Your task to perform on an android device: Empty the shopping cart on amazon. Search for corsair k70 on amazon, select the first entry, add it to the cart, then select checkout. Image 0: 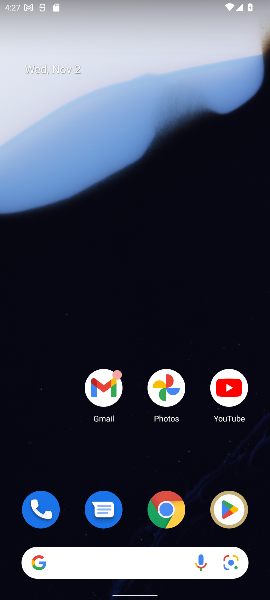
Step 0: click (147, 568)
Your task to perform on an android device: Empty the shopping cart on amazon. Search for corsair k70 on amazon, select the first entry, add it to the cart, then select checkout. Image 1: 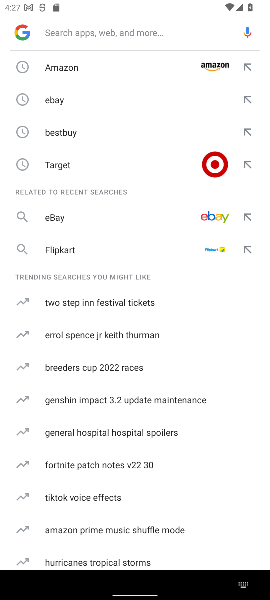
Step 1: click (56, 68)
Your task to perform on an android device: Empty the shopping cart on amazon. Search for corsair k70 on amazon, select the first entry, add it to the cart, then select checkout. Image 2: 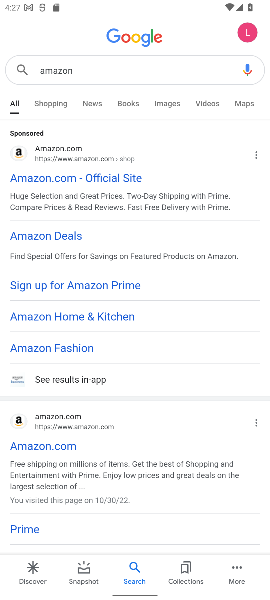
Step 2: click (75, 180)
Your task to perform on an android device: Empty the shopping cart on amazon. Search for corsair k70 on amazon, select the first entry, add it to the cart, then select checkout. Image 3: 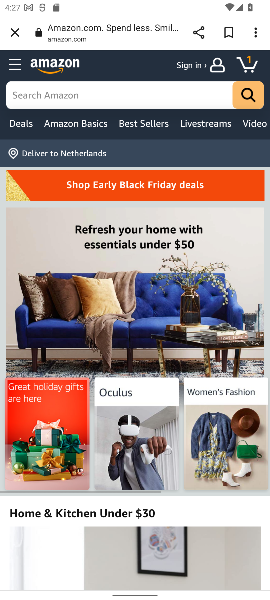
Step 3: click (119, 100)
Your task to perform on an android device: Empty the shopping cart on amazon. Search for corsair k70 on amazon, select the first entry, add it to the cart, then select checkout. Image 4: 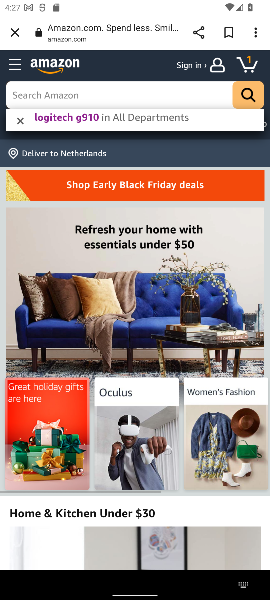
Step 4: type "corsair k70"
Your task to perform on an android device: Empty the shopping cart on amazon. Search for corsair k70 on amazon, select the first entry, add it to the cart, then select checkout. Image 5: 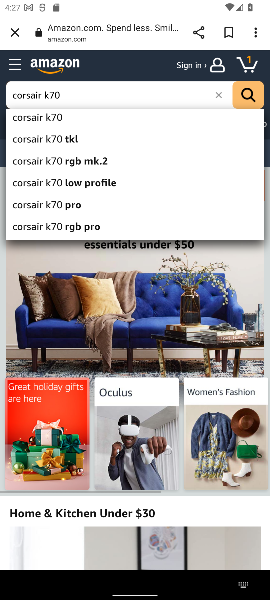
Step 5: click (57, 117)
Your task to perform on an android device: Empty the shopping cart on amazon. Search for corsair k70 on amazon, select the first entry, add it to the cart, then select checkout. Image 6: 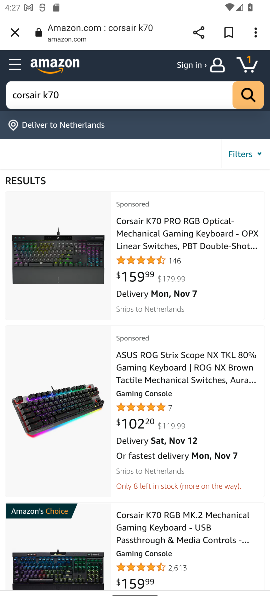
Step 6: click (162, 230)
Your task to perform on an android device: Empty the shopping cart on amazon. Search for corsair k70 on amazon, select the first entry, add it to the cart, then select checkout. Image 7: 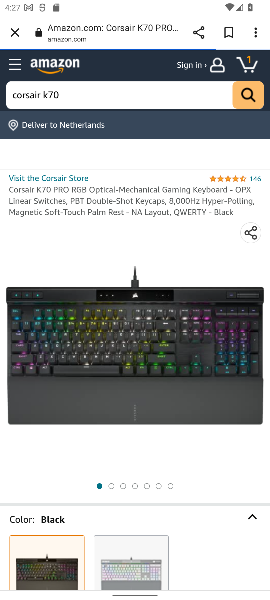
Step 7: drag from (192, 255) to (183, 107)
Your task to perform on an android device: Empty the shopping cart on amazon. Search for corsair k70 on amazon, select the first entry, add it to the cart, then select checkout. Image 8: 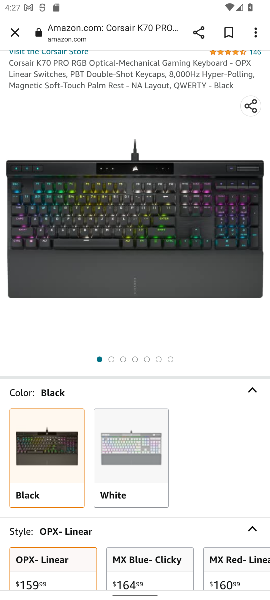
Step 8: drag from (198, 420) to (167, 125)
Your task to perform on an android device: Empty the shopping cart on amazon. Search for corsair k70 on amazon, select the first entry, add it to the cart, then select checkout. Image 9: 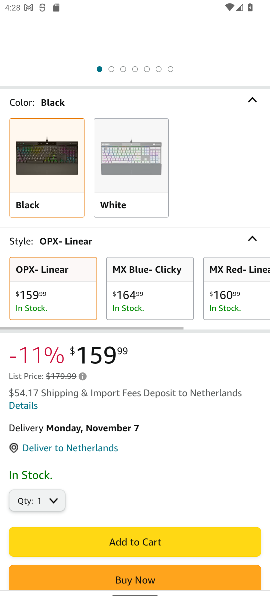
Step 9: click (142, 542)
Your task to perform on an android device: Empty the shopping cart on amazon. Search for corsair k70 on amazon, select the first entry, add it to the cart, then select checkout. Image 10: 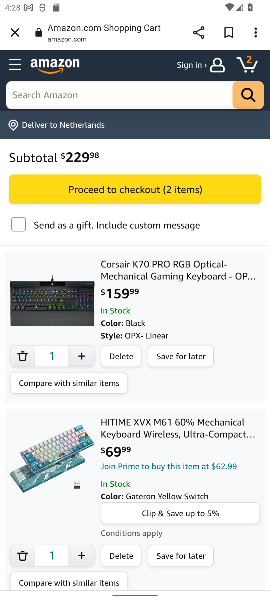
Step 10: click (124, 193)
Your task to perform on an android device: Empty the shopping cart on amazon. Search for corsair k70 on amazon, select the first entry, add it to the cart, then select checkout. Image 11: 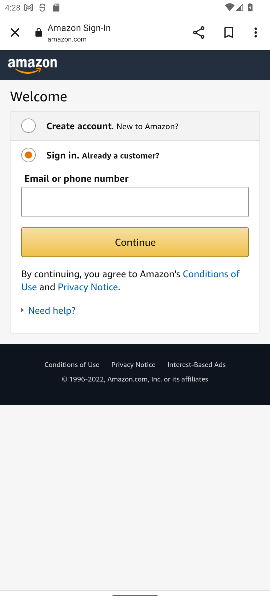
Step 11: task complete